Your task to perform on an android device: Open eBay Image 0: 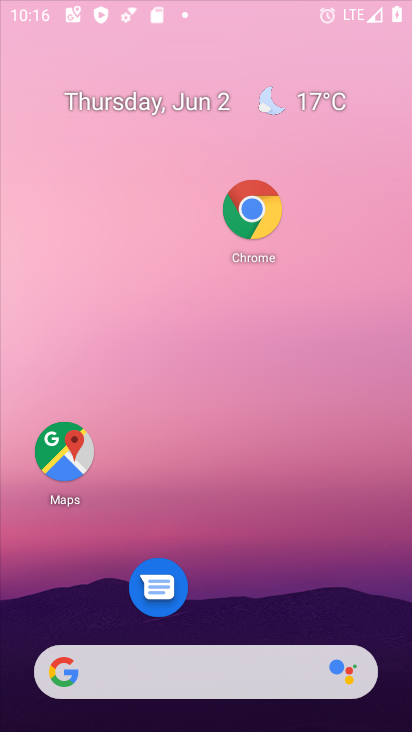
Step 0: press home button
Your task to perform on an android device: Open eBay Image 1: 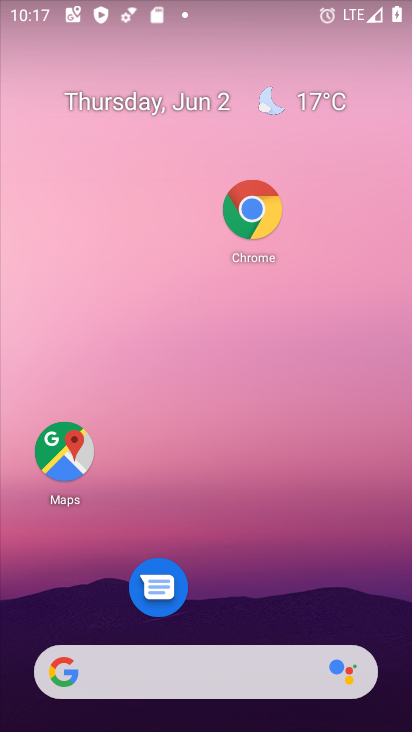
Step 1: click (246, 211)
Your task to perform on an android device: Open eBay Image 2: 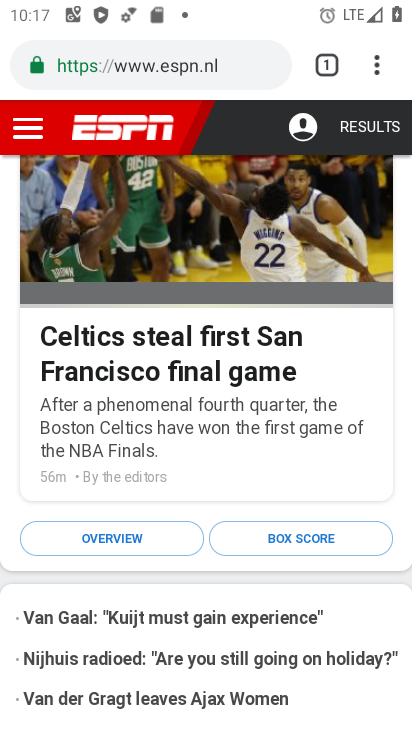
Step 2: click (325, 56)
Your task to perform on an android device: Open eBay Image 3: 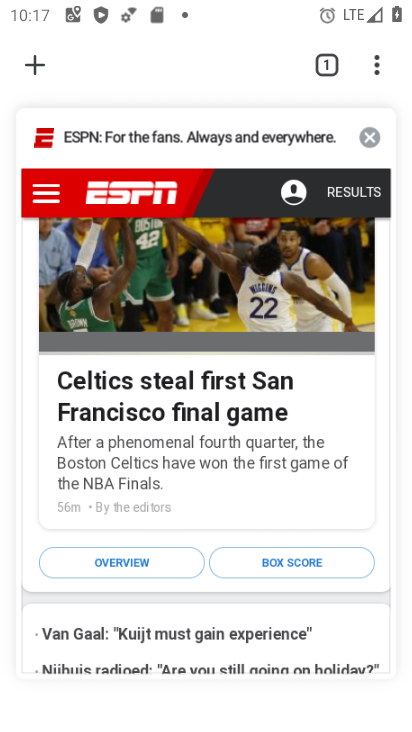
Step 3: click (370, 135)
Your task to perform on an android device: Open eBay Image 4: 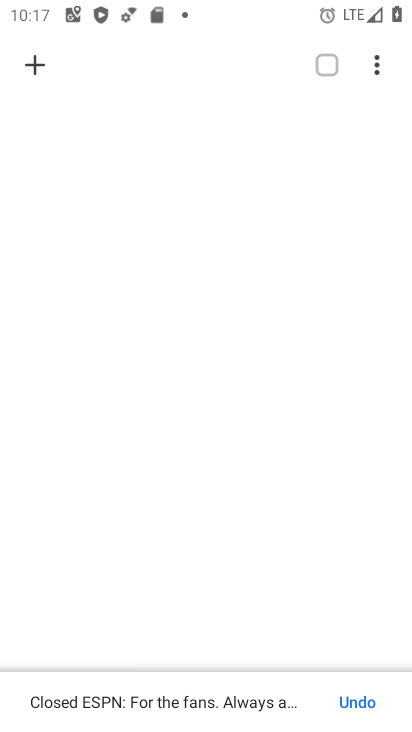
Step 4: click (40, 75)
Your task to perform on an android device: Open eBay Image 5: 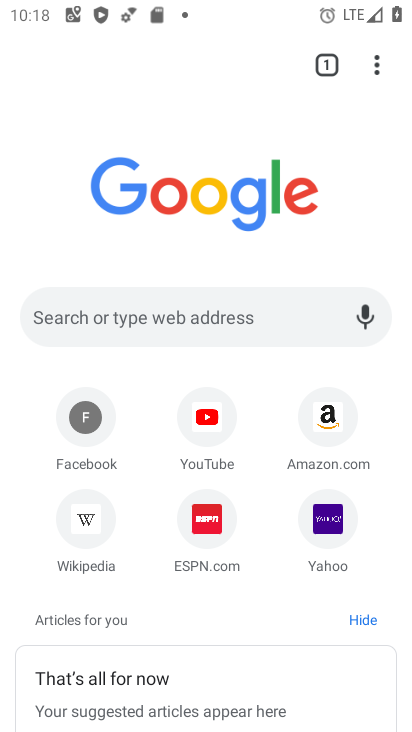
Step 5: click (159, 309)
Your task to perform on an android device: Open eBay Image 6: 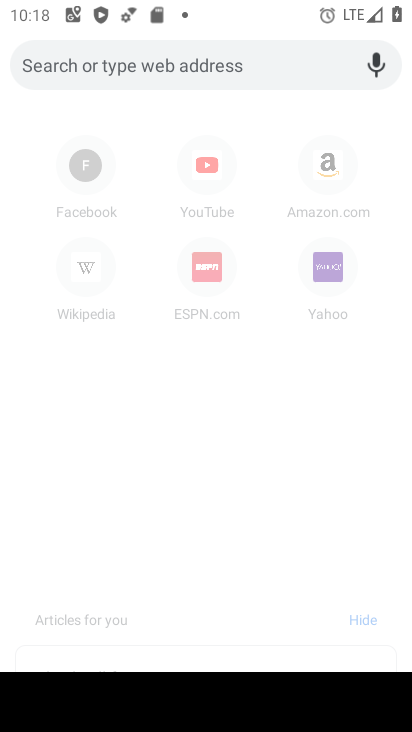
Step 6: type "ebay"
Your task to perform on an android device: Open eBay Image 7: 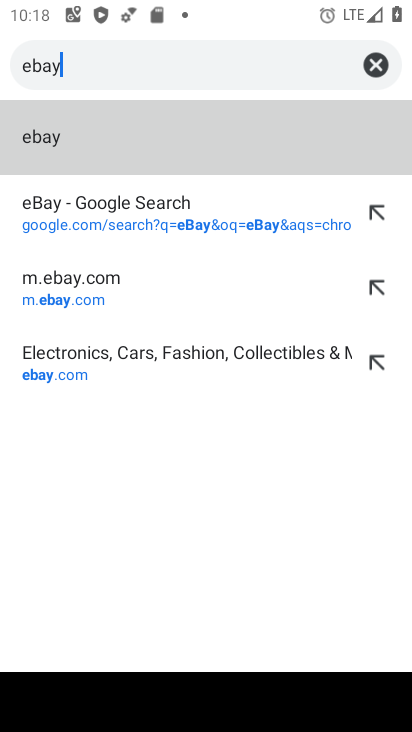
Step 7: click (193, 217)
Your task to perform on an android device: Open eBay Image 8: 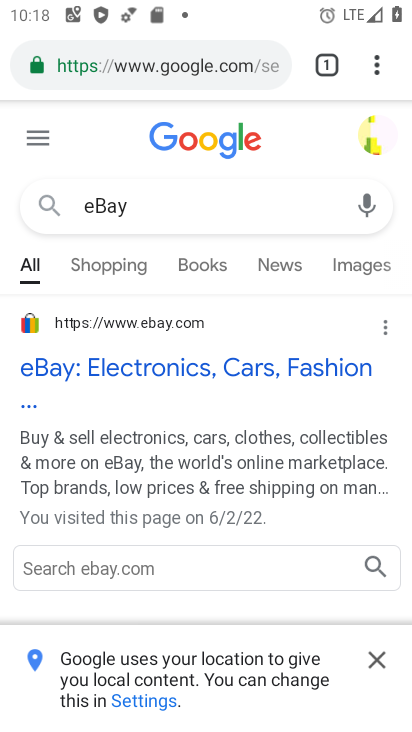
Step 8: click (168, 376)
Your task to perform on an android device: Open eBay Image 9: 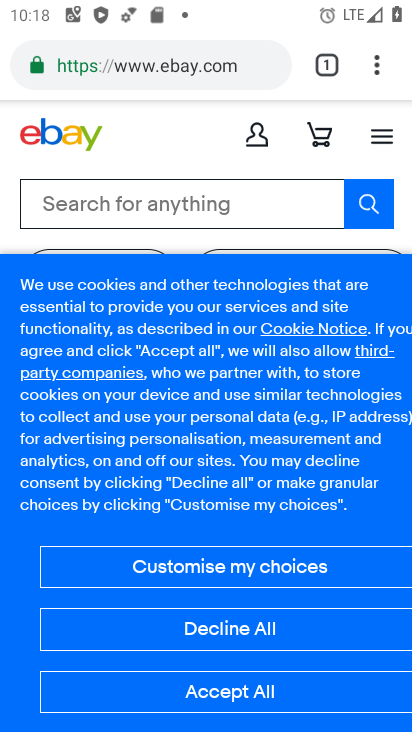
Step 9: click (240, 696)
Your task to perform on an android device: Open eBay Image 10: 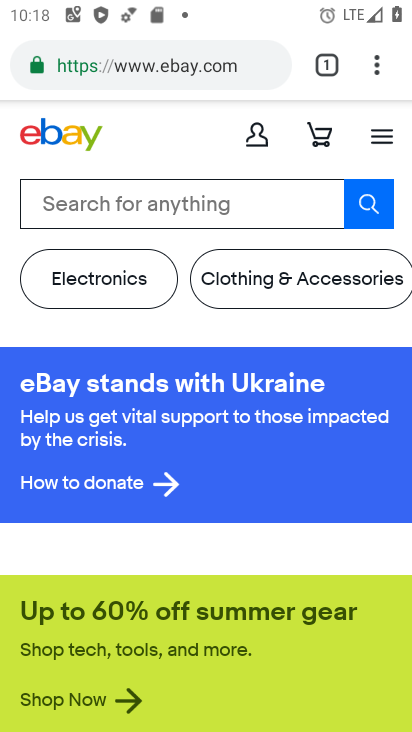
Step 10: task complete